Your task to perform on an android device: set the stopwatch Image 0: 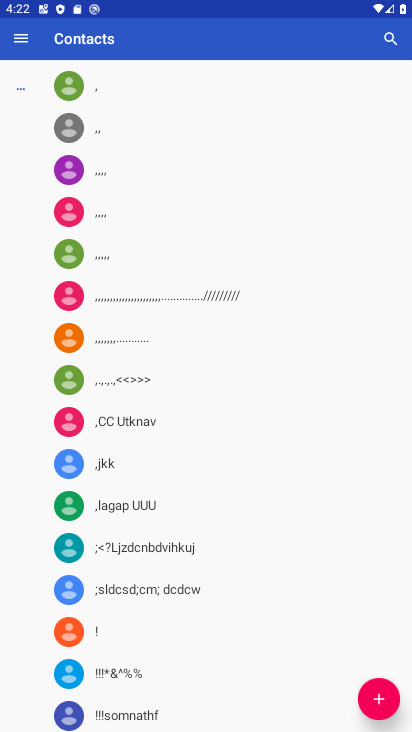
Step 0: press home button
Your task to perform on an android device: set the stopwatch Image 1: 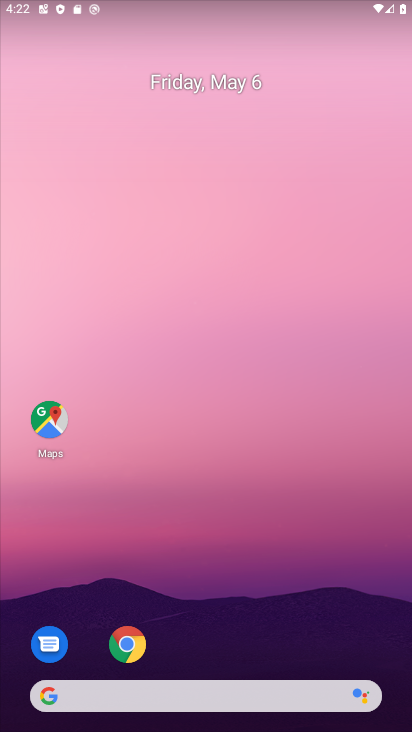
Step 1: drag from (151, 280) to (98, 4)
Your task to perform on an android device: set the stopwatch Image 2: 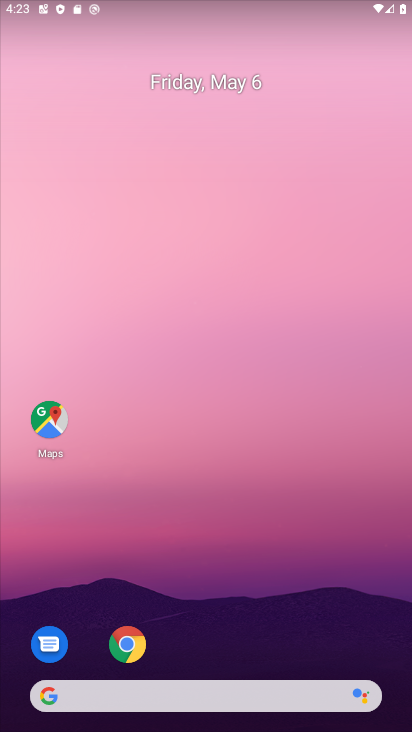
Step 2: drag from (278, 583) to (167, 18)
Your task to perform on an android device: set the stopwatch Image 3: 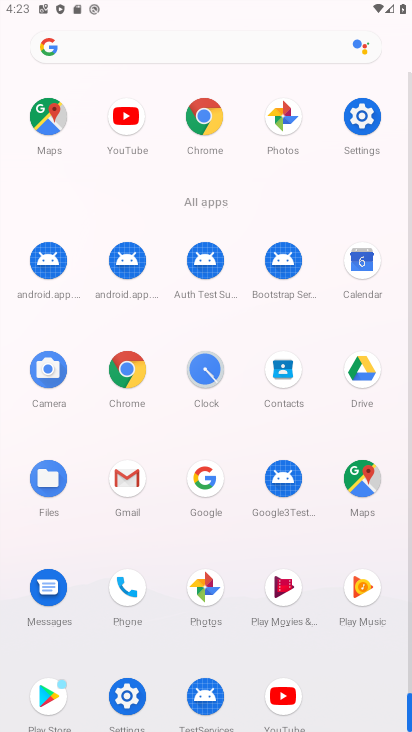
Step 3: click (197, 374)
Your task to perform on an android device: set the stopwatch Image 4: 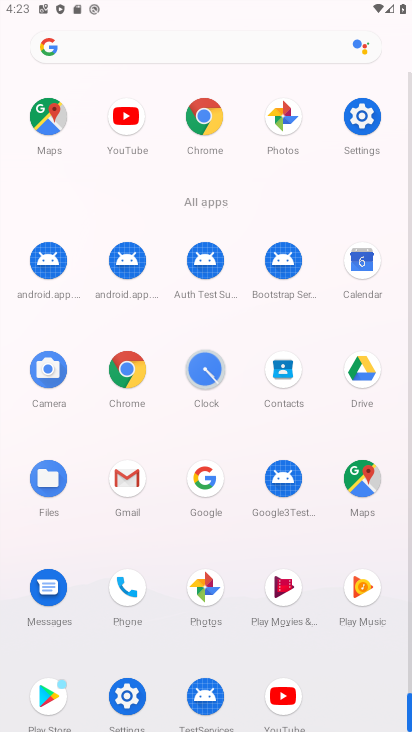
Step 4: click (197, 374)
Your task to perform on an android device: set the stopwatch Image 5: 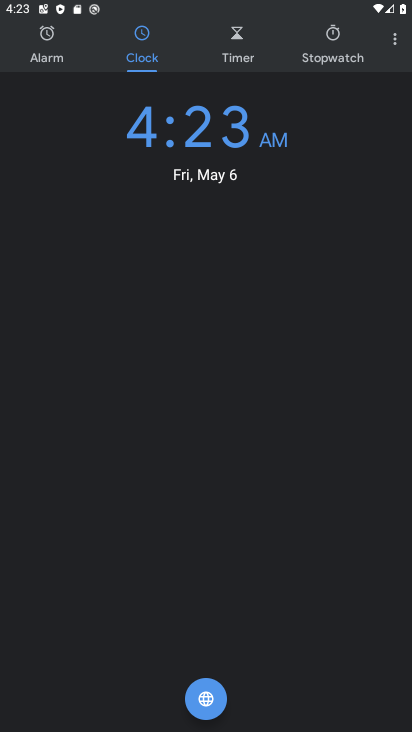
Step 5: click (327, 48)
Your task to perform on an android device: set the stopwatch Image 6: 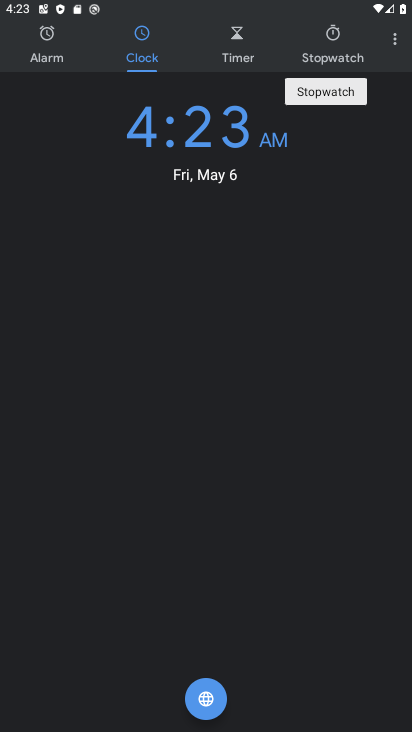
Step 6: click (327, 48)
Your task to perform on an android device: set the stopwatch Image 7: 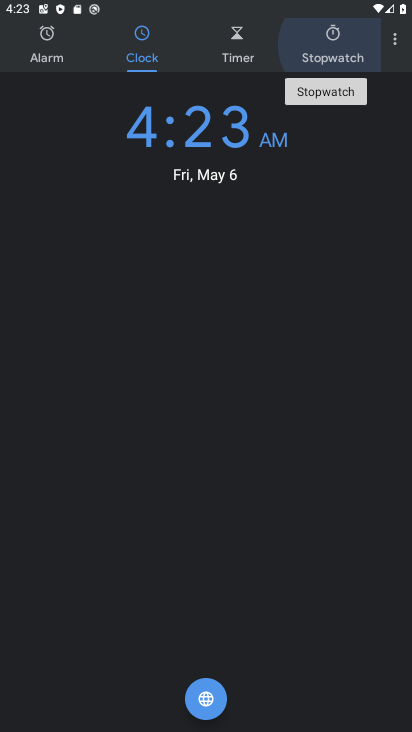
Step 7: click (327, 48)
Your task to perform on an android device: set the stopwatch Image 8: 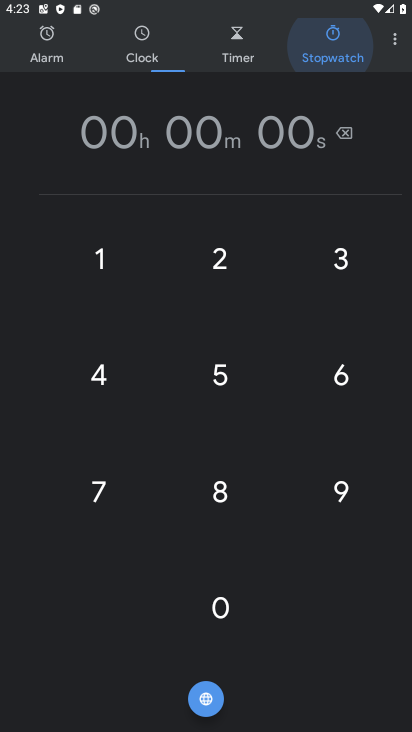
Step 8: click (327, 48)
Your task to perform on an android device: set the stopwatch Image 9: 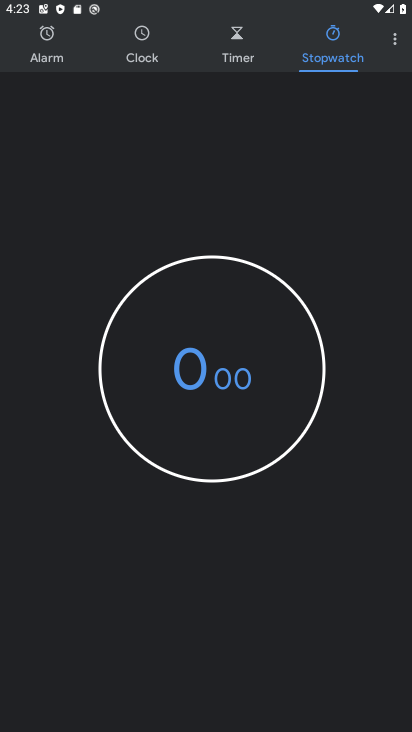
Step 9: click (327, 48)
Your task to perform on an android device: set the stopwatch Image 10: 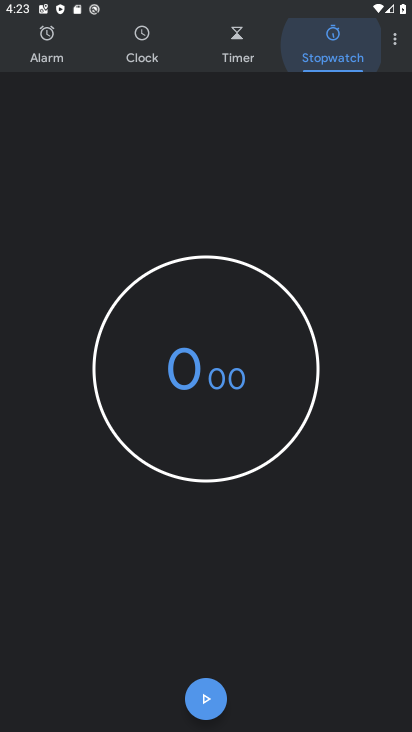
Step 10: click (327, 48)
Your task to perform on an android device: set the stopwatch Image 11: 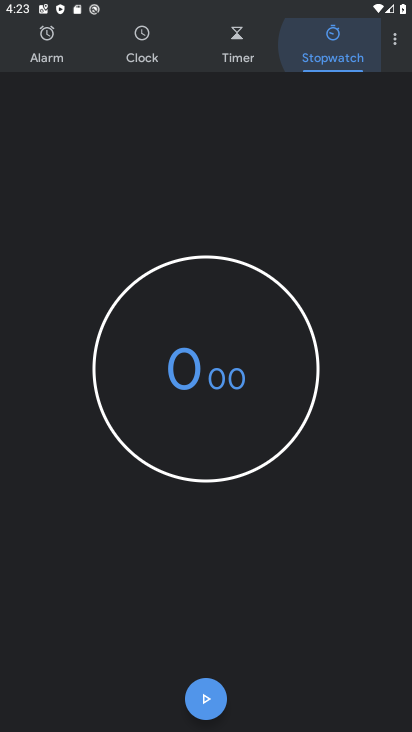
Step 11: click (328, 47)
Your task to perform on an android device: set the stopwatch Image 12: 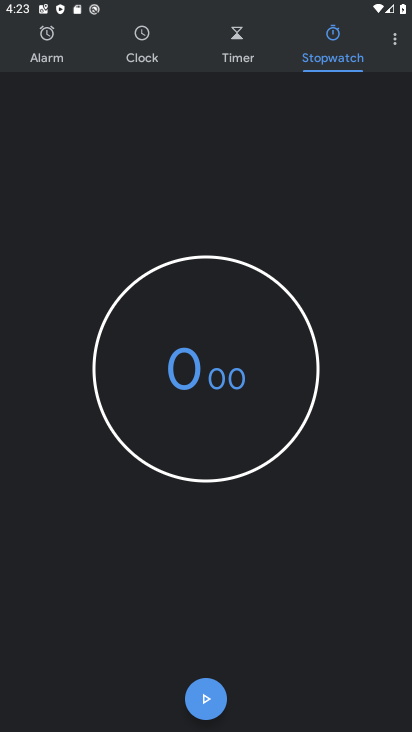
Step 12: click (198, 706)
Your task to perform on an android device: set the stopwatch Image 13: 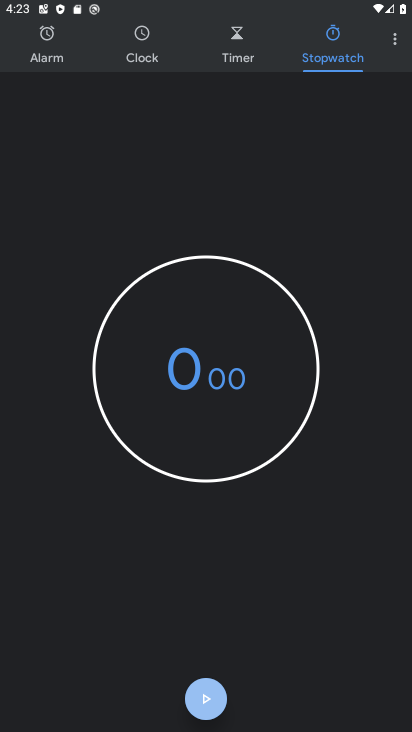
Step 13: click (203, 702)
Your task to perform on an android device: set the stopwatch Image 14: 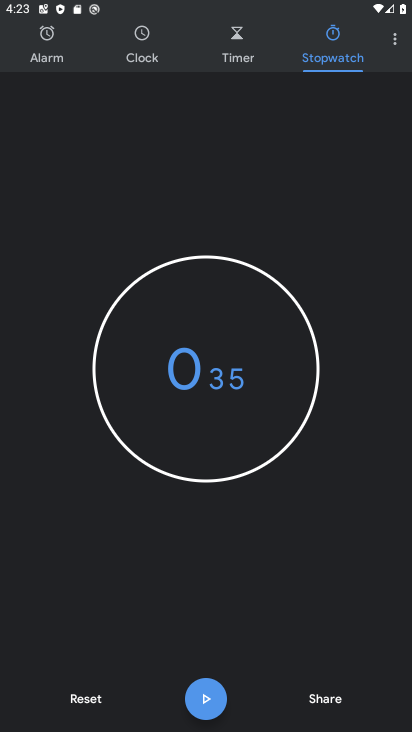
Step 14: click (196, 701)
Your task to perform on an android device: set the stopwatch Image 15: 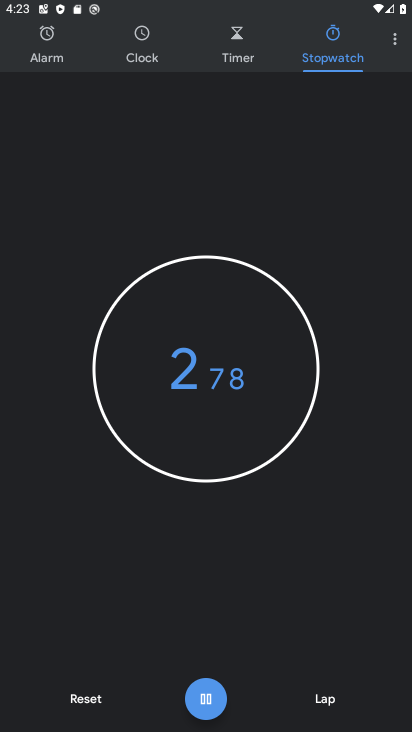
Step 15: click (209, 700)
Your task to perform on an android device: set the stopwatch Image 16: 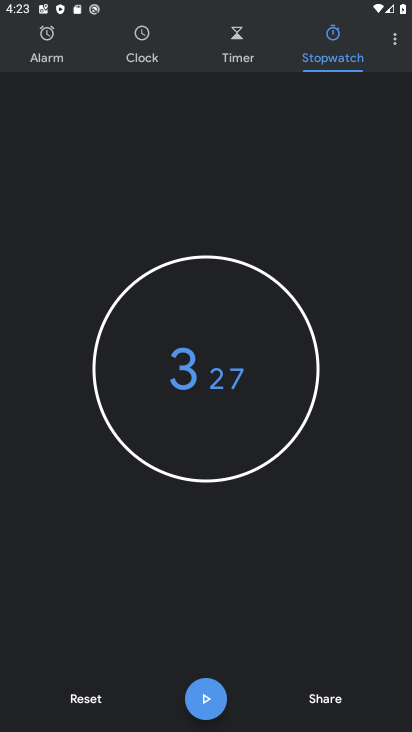
Step 16: task complete